Your task to perform on an android device: toggle data saver in the chrome app Image 0: 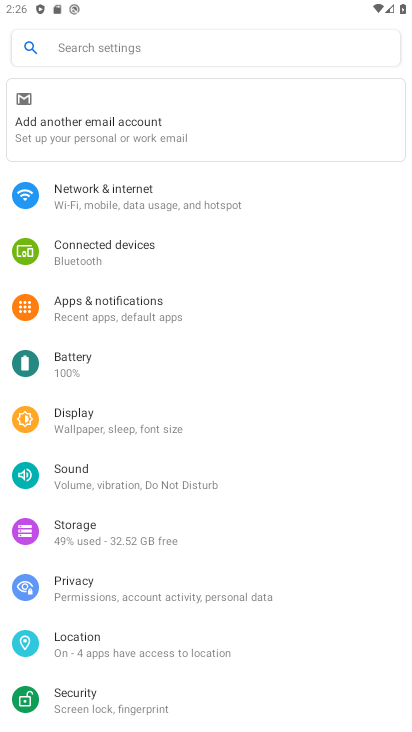
Step 0: press home button
Your task to perform on an android device: toggle data saver in the chrome app Image 1: 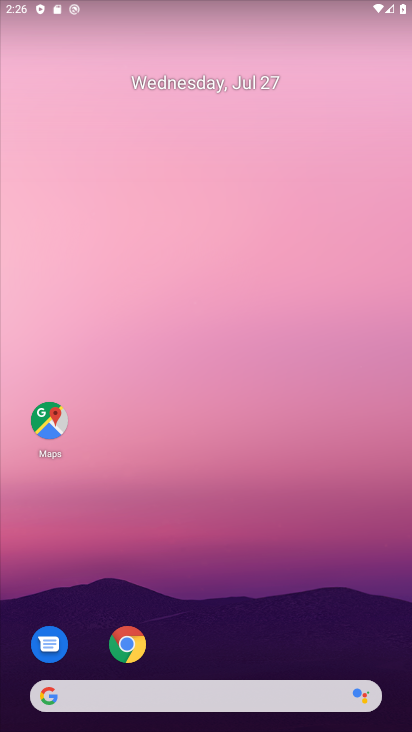
Step 1: click (141, 645)
Your task to perform on an android device: toggle data saver in the chrome app Image 2: 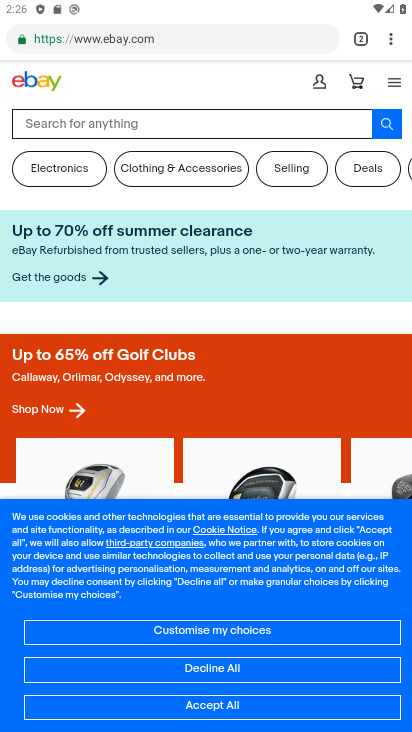
Step 2: click (385, 37)
Your task to perform on an android device: toggle data saver in the chrome app Image 3: 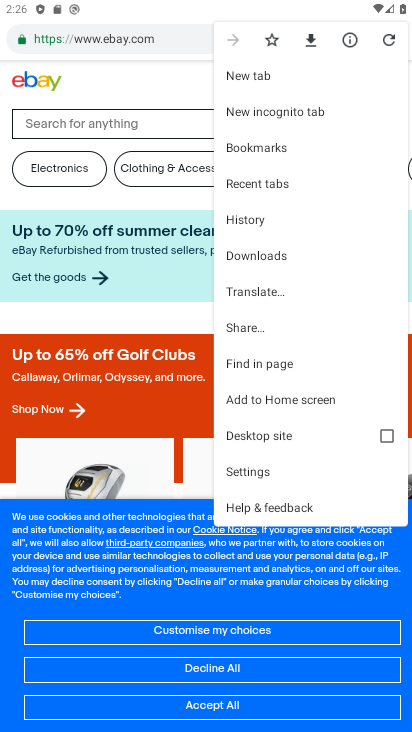
Step 3: click (246, 475)
Your task to perform on an android device: toggle data saver in the chrome app Image 4: 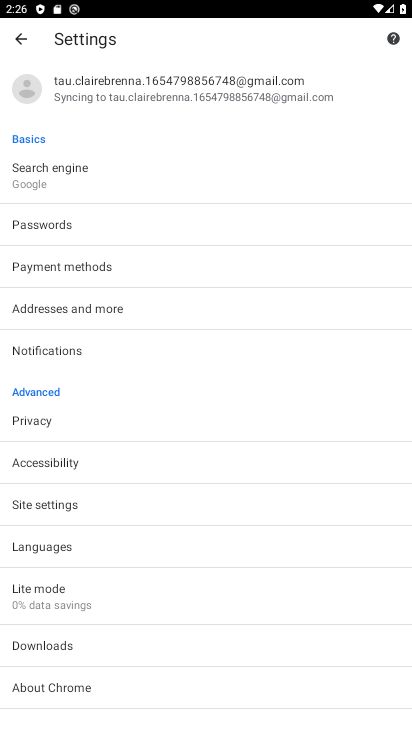
Step 4: click (57, 599)
Your task to perform on an android device: toggle data saver in the chrome app Image 5: 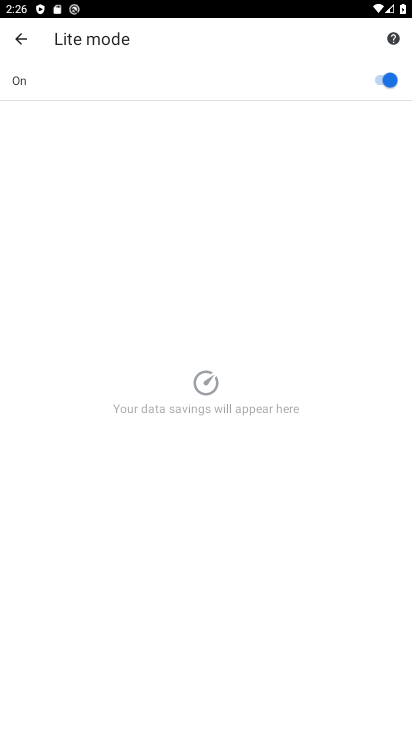
Step 5: click (366, 77)
Your task to perform on an android device: toggle data saver in the chrome app Image 6: 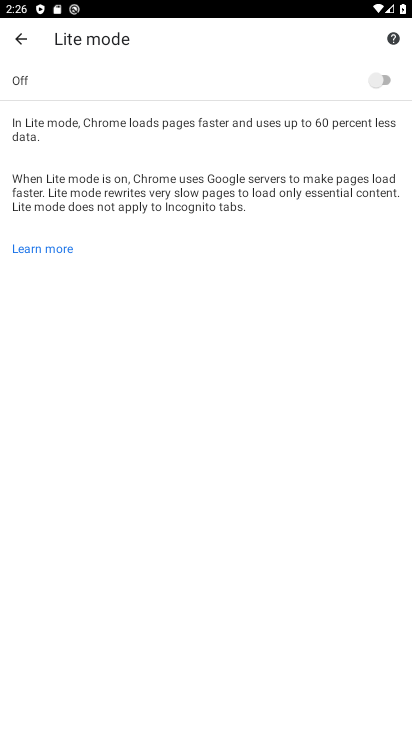
Step 6: task complete